Your task to perform on an android device: When is my next meeting? Image 0: 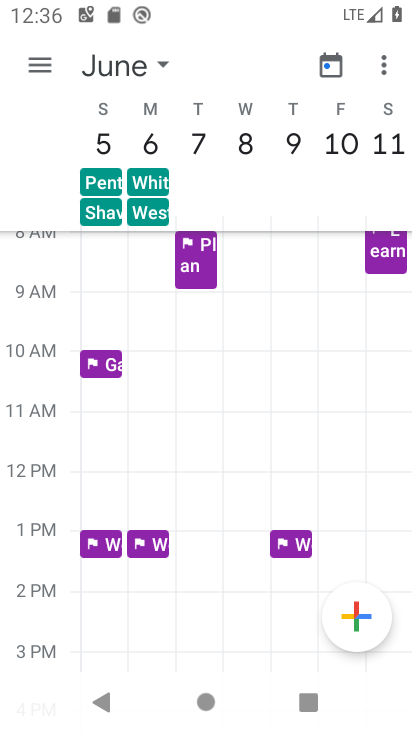
Step 0: press home button
Your task to perform on an android device: When is my next meeting? Image 1: 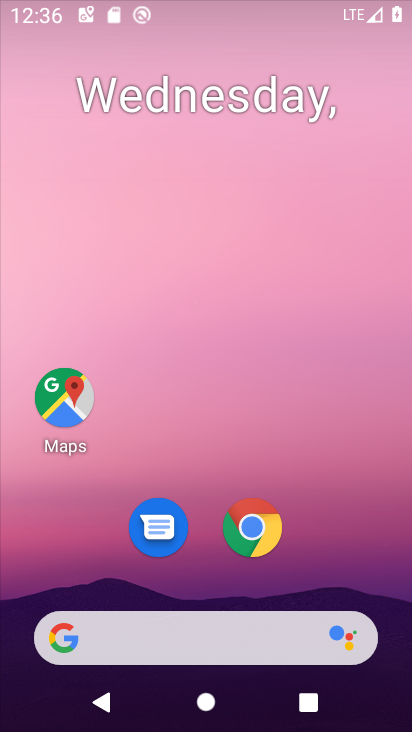
Step 1: drag from (278, 606) to (272, 139)
Your task to perform on an android device: When is my next meeting? Image 2: 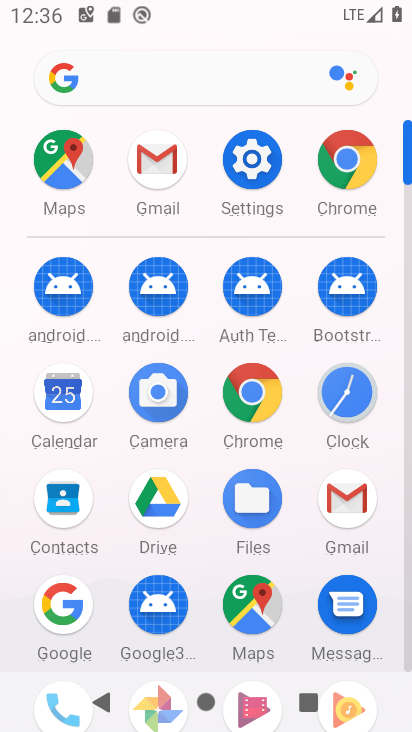
Step 2: click (351, 495)
Your task to perform on an android device: When is my next meeting? Image 3: 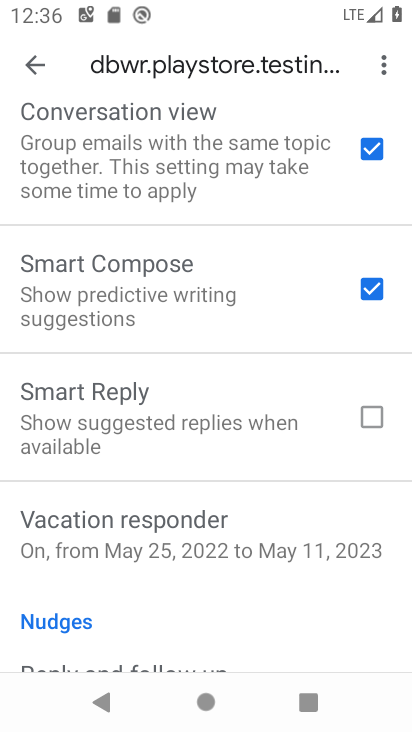
Step 3: press back button
Your task to perform on an android device: When is my next meeting? Image 4: 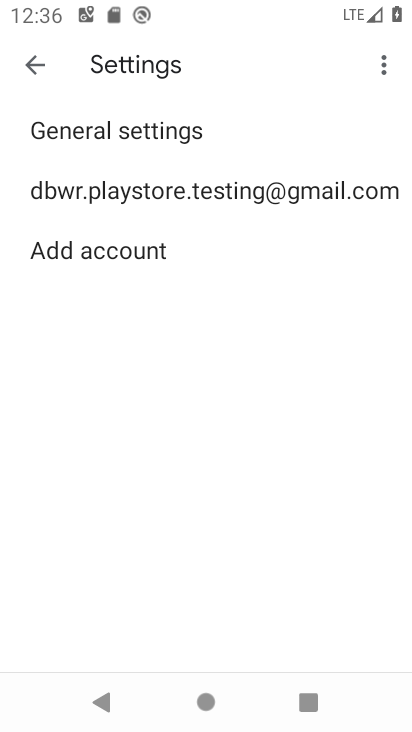
Step 4: press back button
Your task to perform on an android device: When is my next meeting? Image 5: 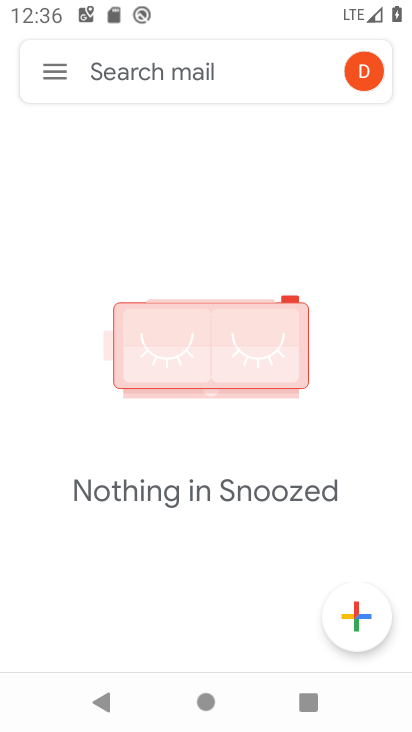
Step 5: press home button
Your task to perform on an android device: When is my next meeting? Image 6: 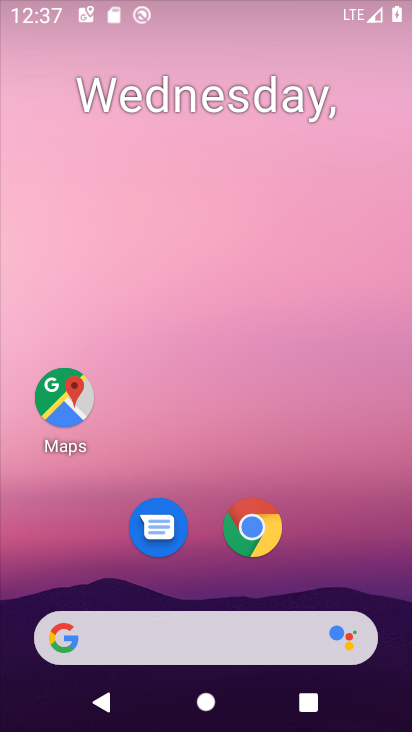
Step 6: drag from (241, 666) to (275, 82)
Your task to perform on an android device: When is my next meeting? Image 7: 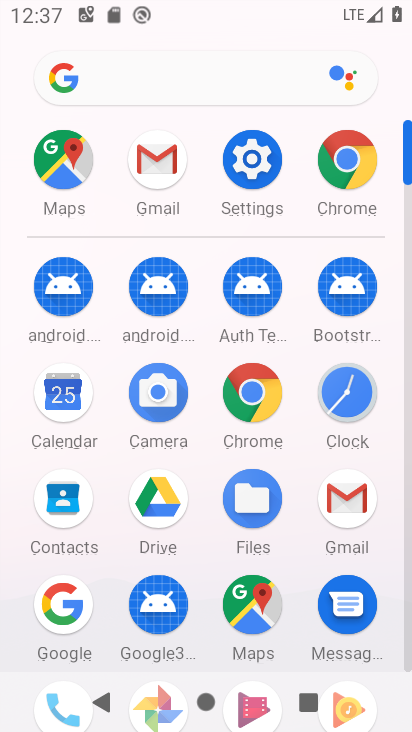
Step 7: click (67, 405)
Your task to perform on an android device: When is my next meeting? Image 8: 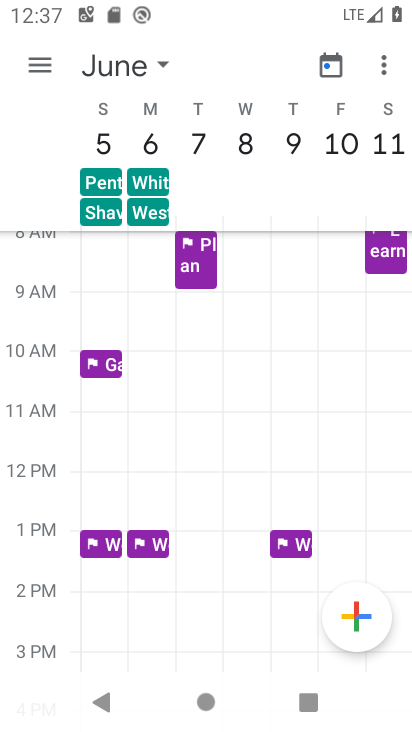
Step 8: click (170, 62)
Your task to perform on an android device: When is my next meeting? Image 9: 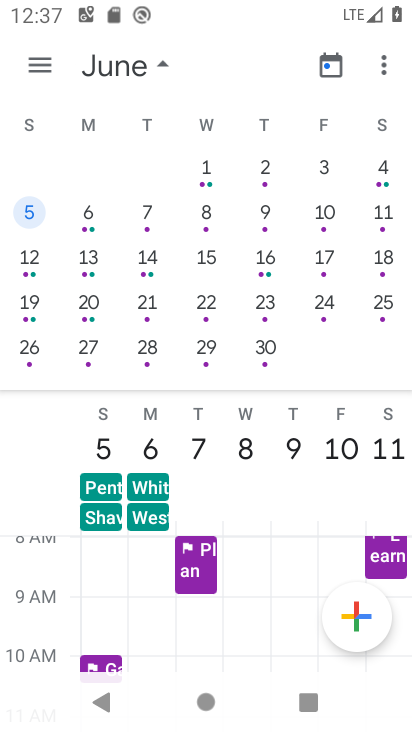
Step 9: drag from (71, 275) to (376, 264)
Your task to perform on an android device: When is my next meeting? Image 10: 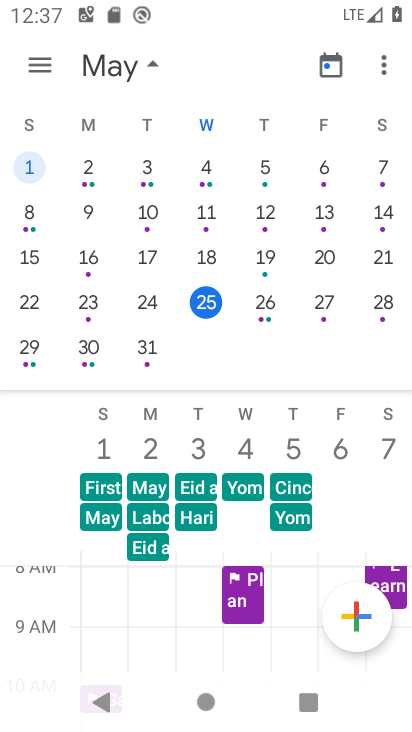
Step 10: click (204, 300)
Your task to perform on an android device: When is my next meeting? Image 11: 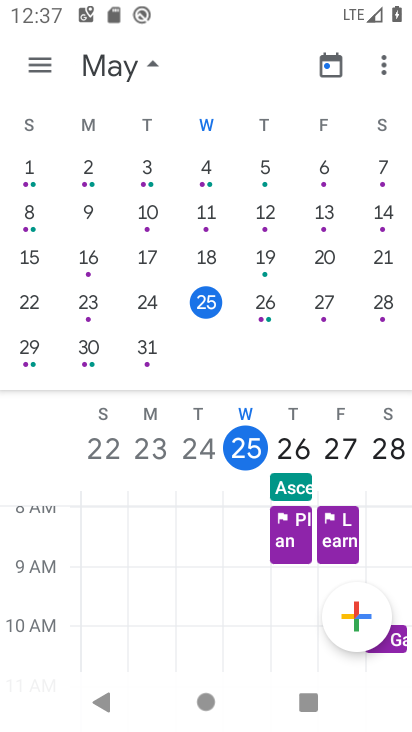
Step 11: task complete